Your task to perform on an android device: open device folders in google photos Image 0: 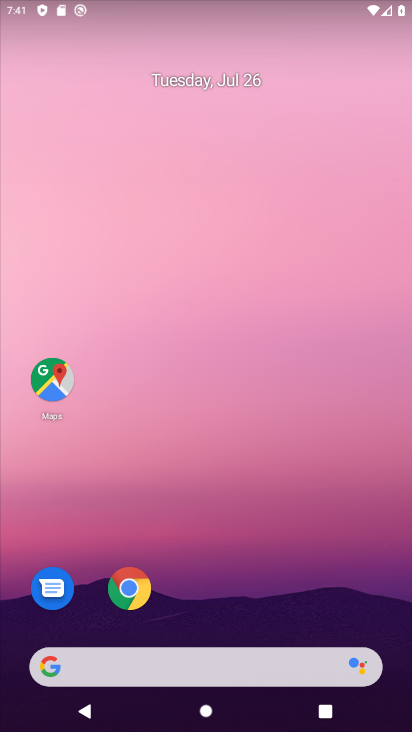
Step 0: drag from (224, 641) to (246, 327)
Your task to perform on an android device: open device folders in google photos Image 1: 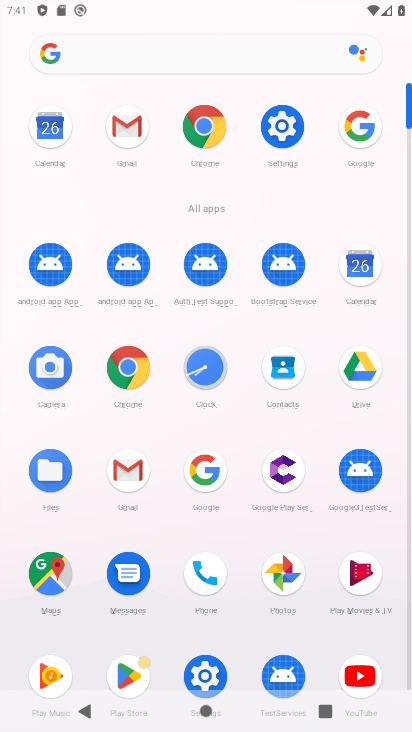
Step 1: click (285, 561)
Your task to perform on an android device: open device folders in google photos Image 2: 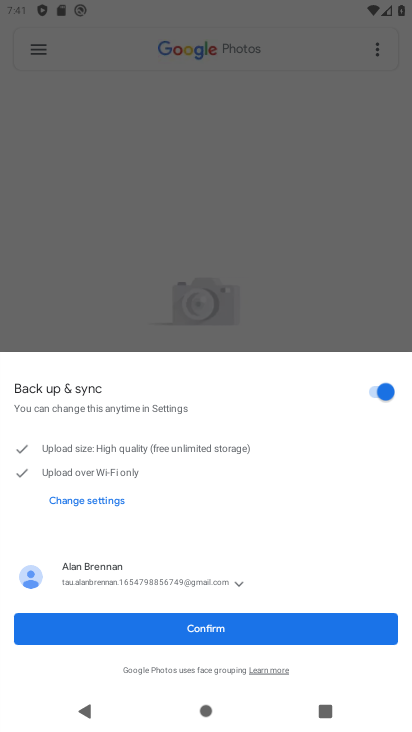
Step 2: click (233, 634)
Your task to perform on an android device: open device folders in google photos Image 3: 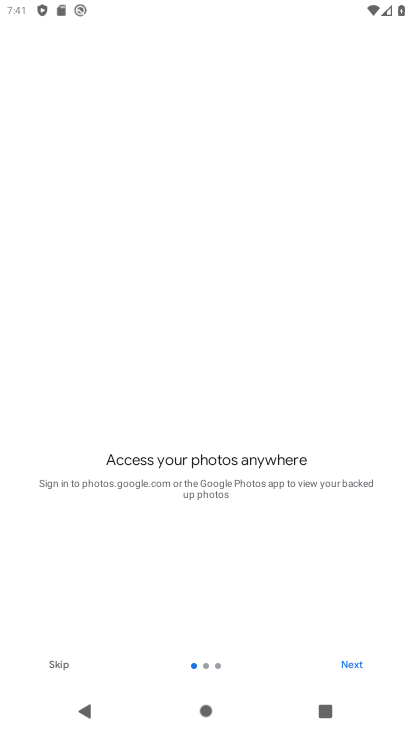
Step 3: click (356, 664)
Your task to perform on an android device: open device folders in google photos Image 4: 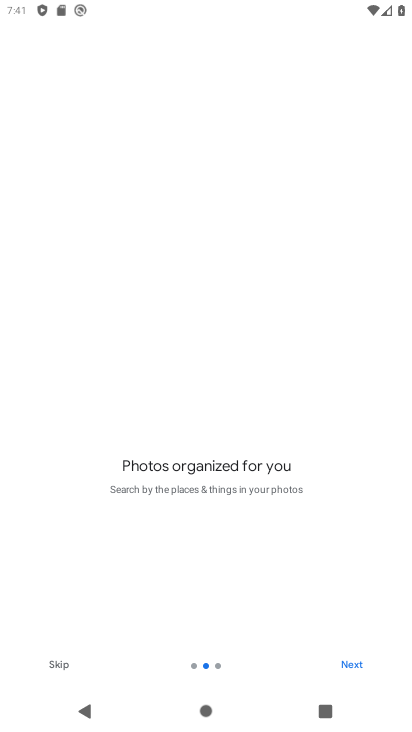
Step 4: click (356, 664)
Your task to perform on an android device: open device folders in google photos Image 5: 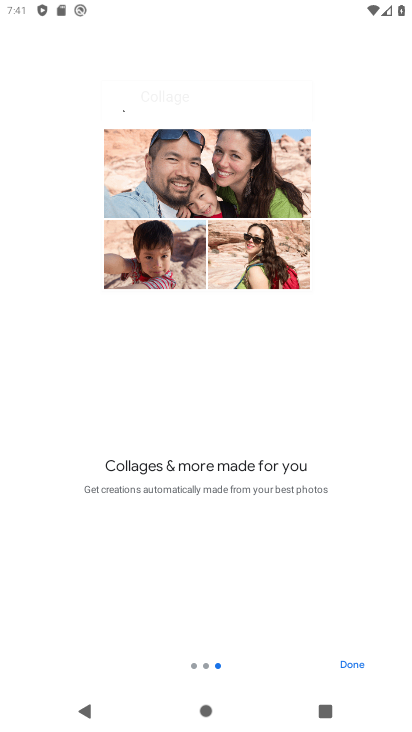
Step 5: click (348, 658)
Your task to perform on an android device: open device folders in google photos Image 6: 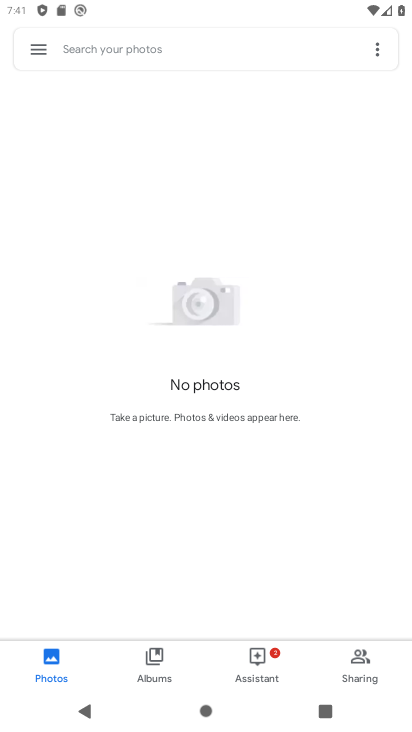
Step 6: click (35, 51)
Your task to perform on an android device: open device folders in google photos Image 7: 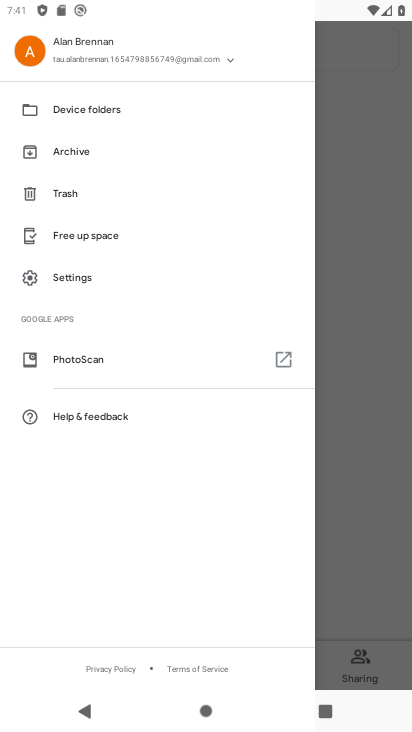
Step 7: click (82, 105)
Your task to perform on an android device: open device folders in google photos Image 8: 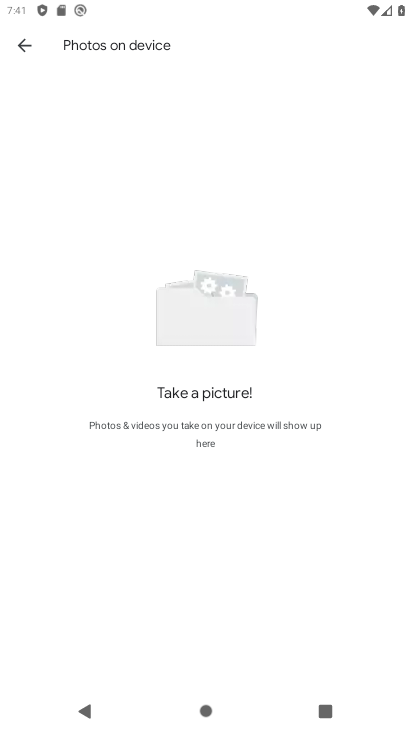
Step 8: task complete